Your task to perform on an android device: open chrome privacy settings Image 0: 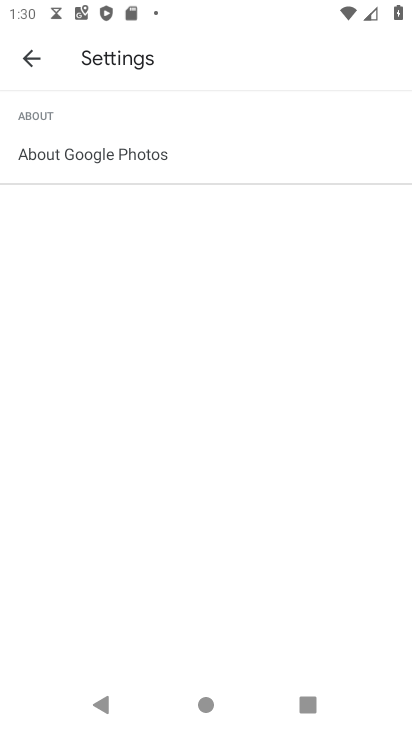
Step 0: press home button
Your task to perform on an android device: open chrome privacy settings Image 1: 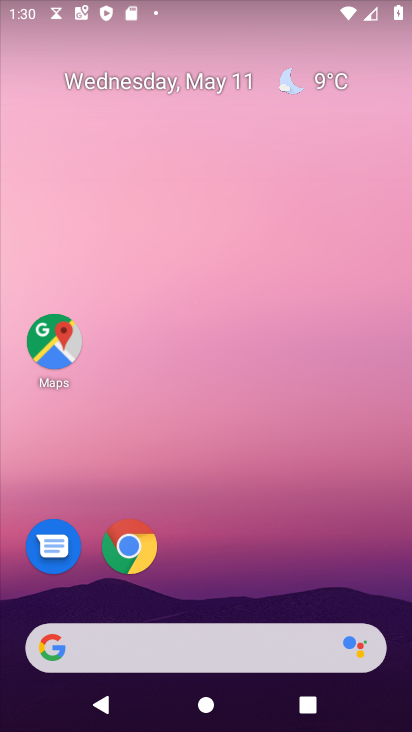
Step 1: drag from (281, 632) to (351, 3)
Your task to perform on an android device: open chrome privacy settings Image 2: 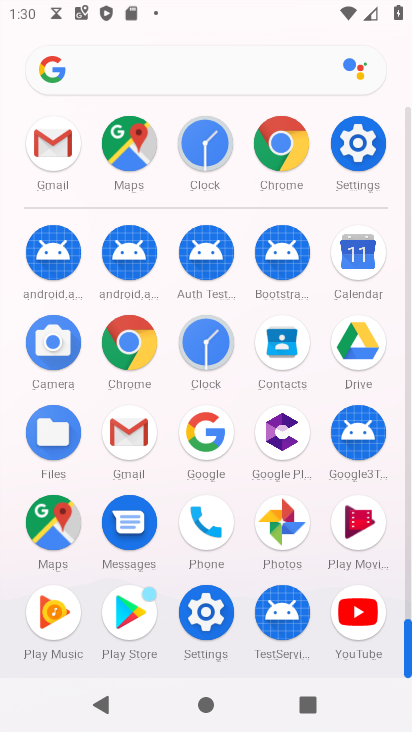
Step 2: click (140, 355)
Your task to perform on an android device: open chrome privacy settings Image 3: 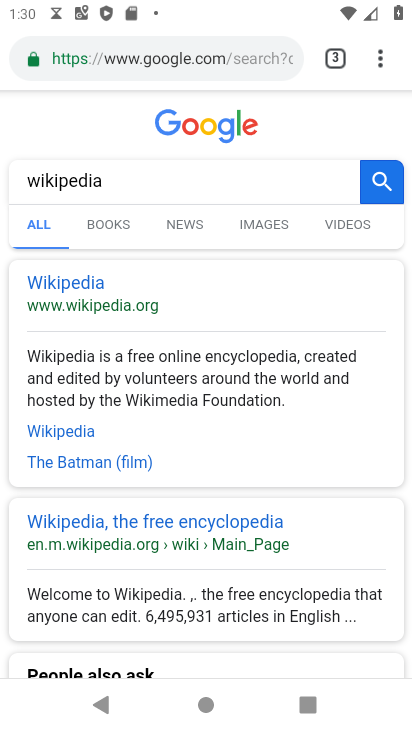
Step 3: click (374, 54)
Your task to perform on an android device: open chrome privacy settings Image 4: 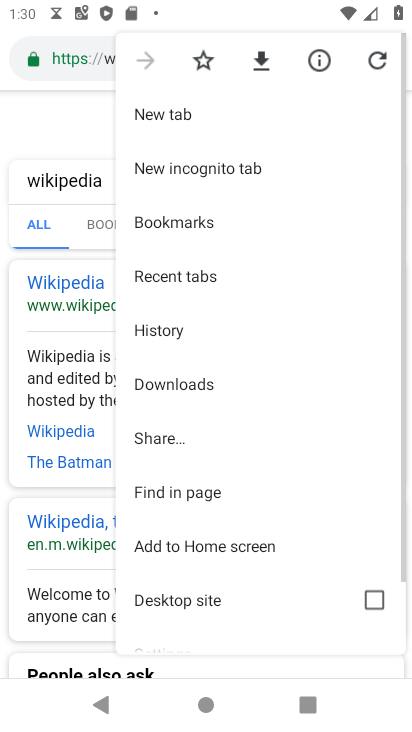
Step 4: drag from (204, 588) to (207, 195)
Your task to perform on an android device: open chrome privacy settings Image 5: 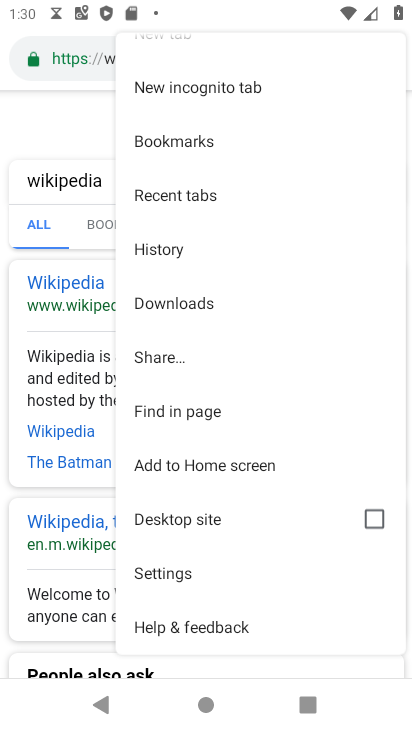
Step 5: click (161, 577)
Your task to perform on an android device: open chrome privacy settings Image 6: 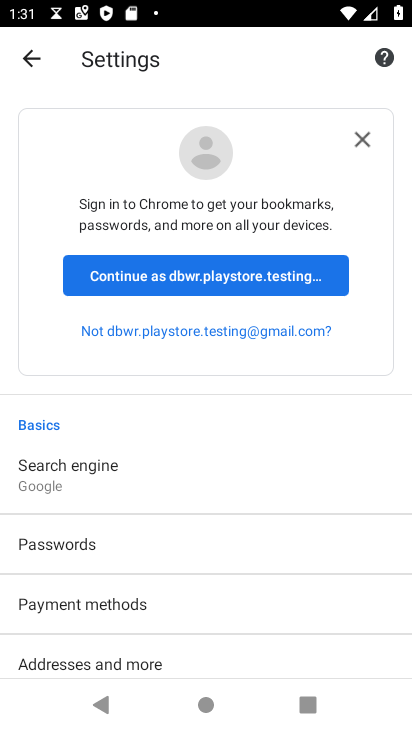
Step 6: drag from (244, 628) to (260, 166)
Your task to perform on an android device: open chrome privacy settings Image 7: 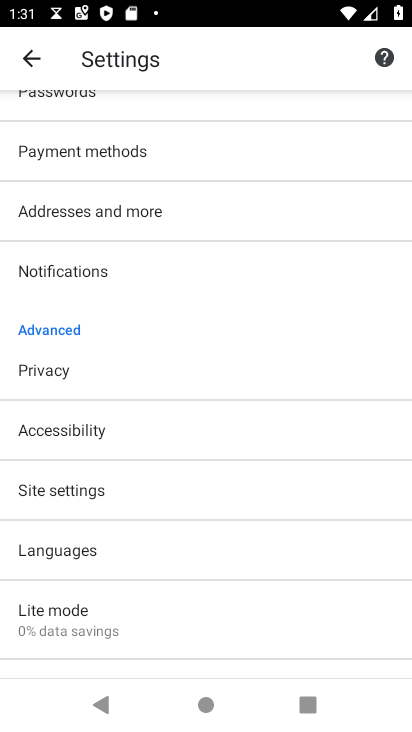
Step 7: click (47, 381)
Your task to perform on an android device: open chrome privacy settings Image 8: 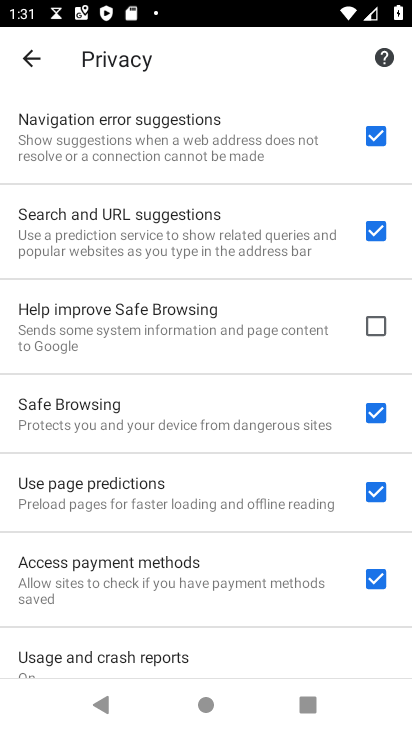
Step 8: task complete